Your task to perform on an android device: Go to Android settings Image 0: 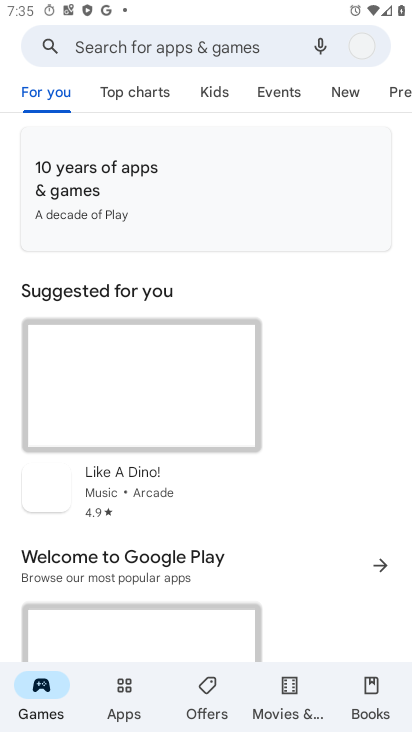
Step 0: press home button
Your task to perform on an android device: Go to Android settings Image 1: 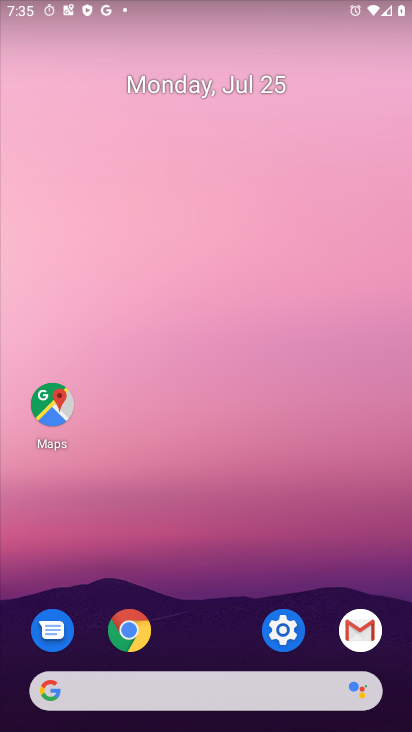
Step 1: click (282, 619)
Your task to perform on an android device: Go to Android settings Image 2: 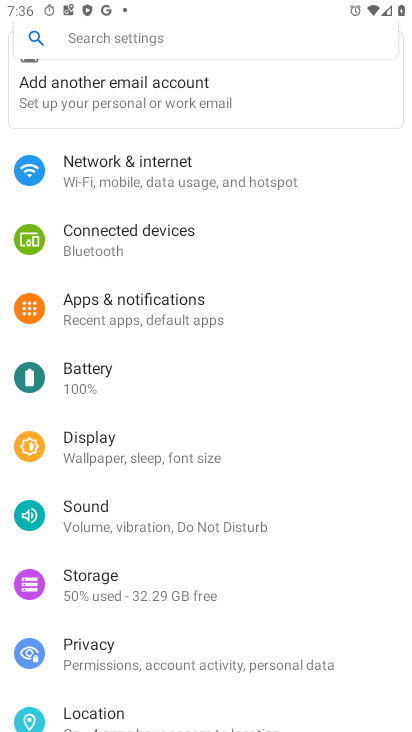
Step 2: click (117, 44)
Your task to perform on an android device: Go to Android settings Image 3: 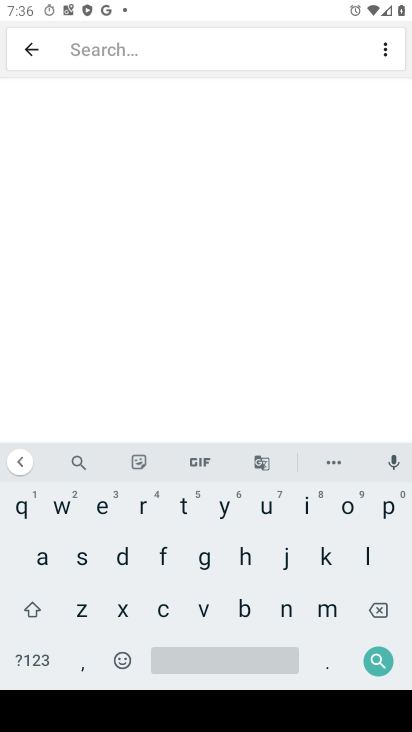
Step 3: click (34, 556)
Your task to perform on an android device: Go to Android settings Image 4: 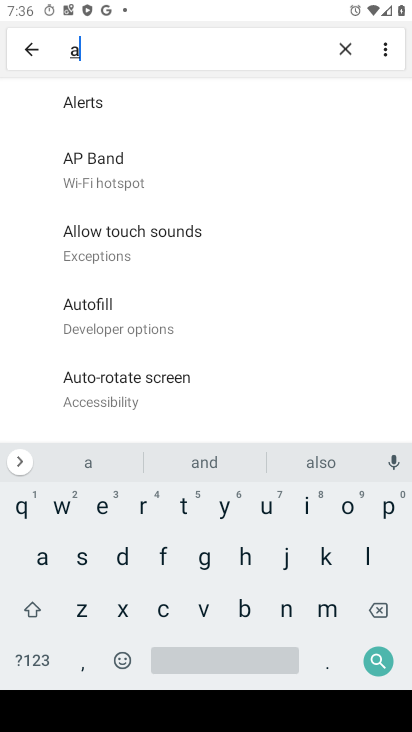
Step 4: click (289, 605)
Your task to perform on an android device: Go to Android settings Image 5: 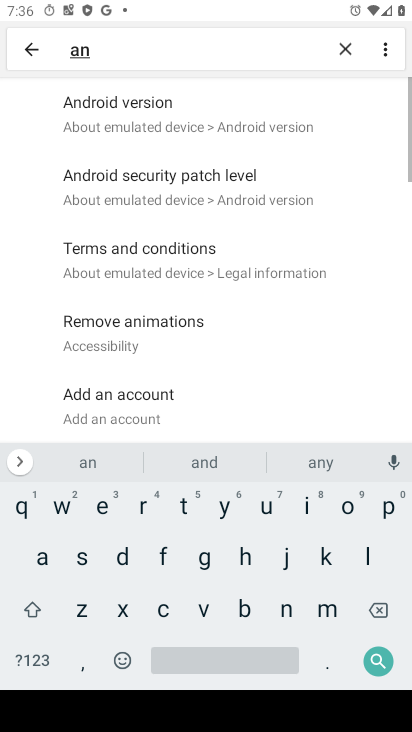
Step 5: click (147, 110)
Your task to perform on an android device: Go to Android settings Image 6: 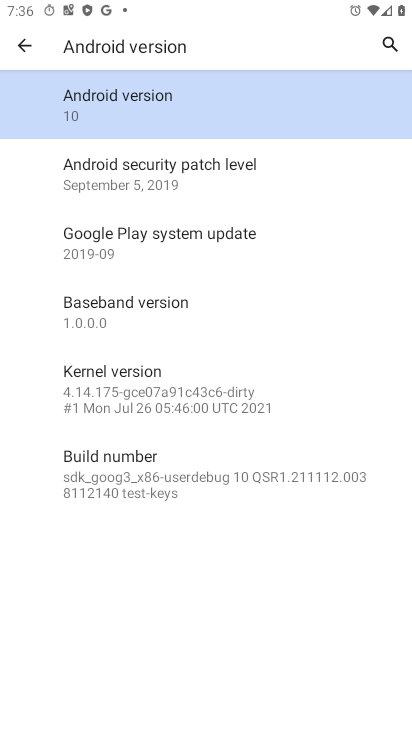
Step 6: click (147, 110)
Your task to perform on an android device: Go to Android settings Image 7: 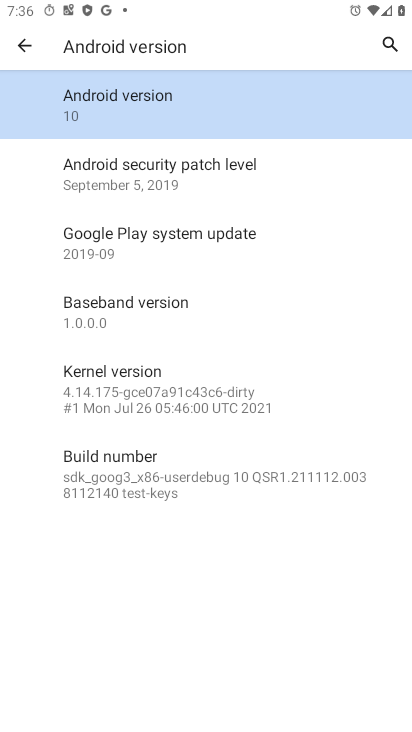
Step 7: task complete